Your task to perform on an android device: change the clock display to analog Image 0: 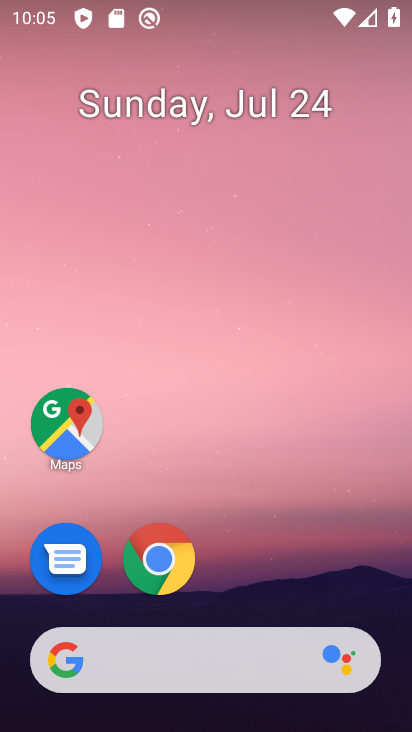
Step 0: drag from (214, 570) to (250, 1)
Your task to perform on an android device: change the clock display to analog Image 1: 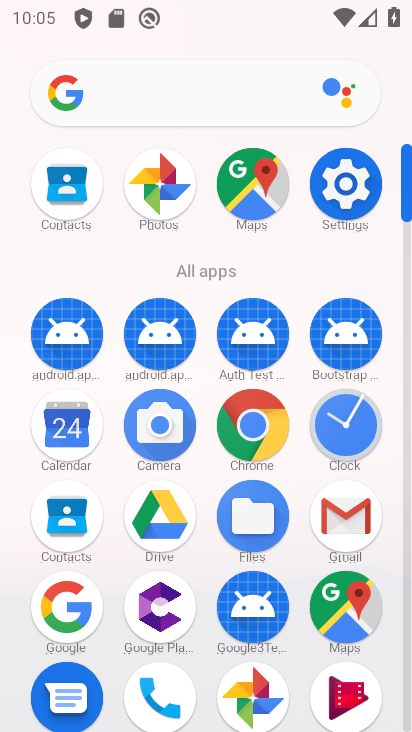
Step 1: click (360, 433)
Your task to perform on an android device: change the clock display to analog Image 2: 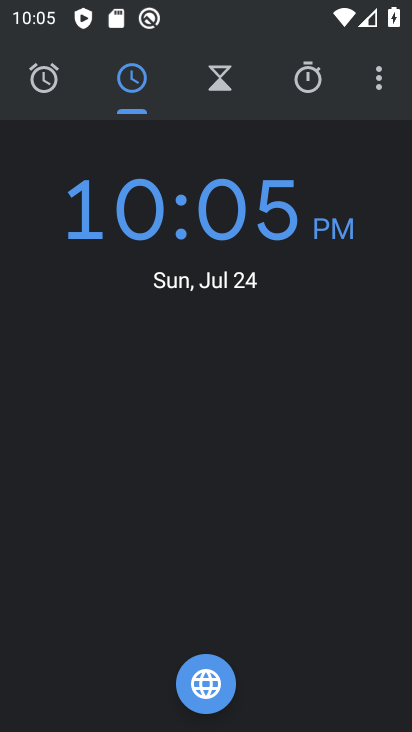
Step 2: click (383, 64)
Your task to perform on an android device: change the clock display to analog Image 3: 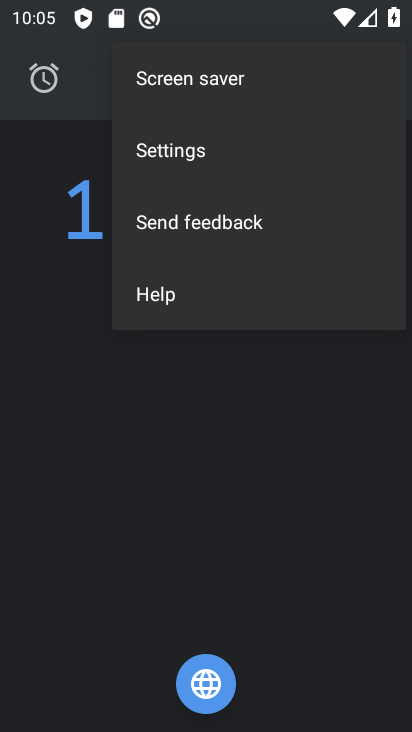
Step 3: click (160, 152)
Your task to perform on an android device: change the clock display to analog Image 4: 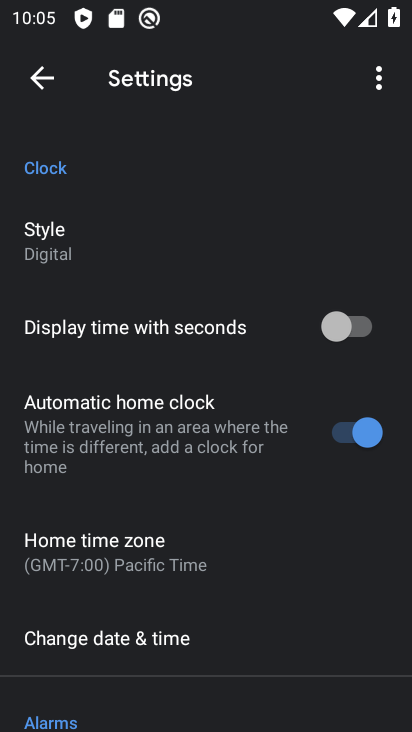
Step 4: click (88, 248)
Your task to perform on an android device: change the clock display to analog Image 5: 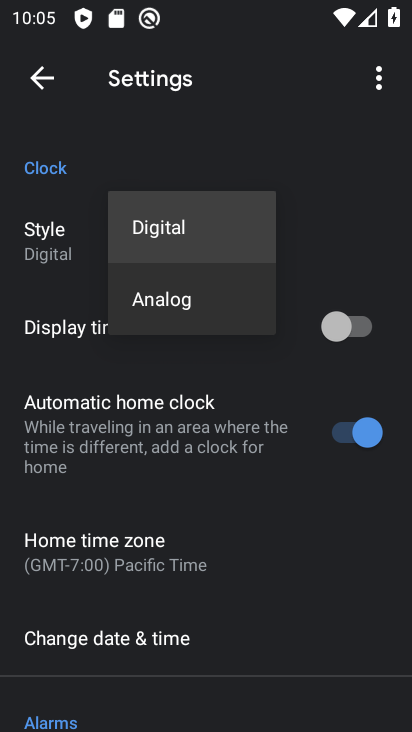
Step 5: click (157, 312)
Your task to perform on an android device: change the clock display to analog Image 6: 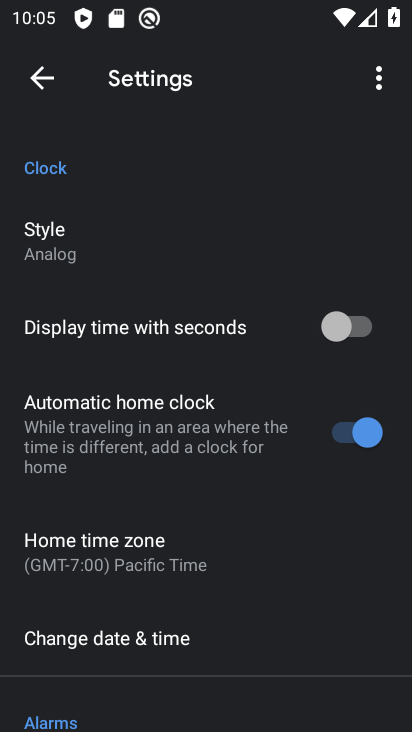
Step 6: task complete